Your task to perform on an android device: Check the settings for the Google Play Music app Image 0: 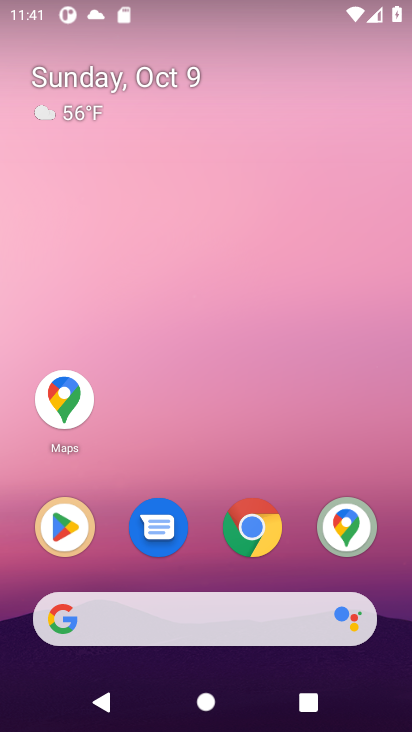
Step 0: drag from (208, 548) to (265, 82)
Your task to perform on an android device: Check the settings for the Google Play Music app Image 1: 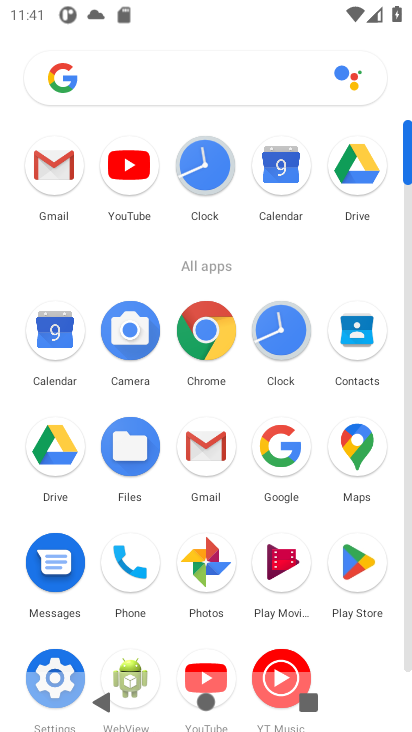
Step 1: task complete